Your task to perform on an android device: change notification settings in the gmail app Image 0: 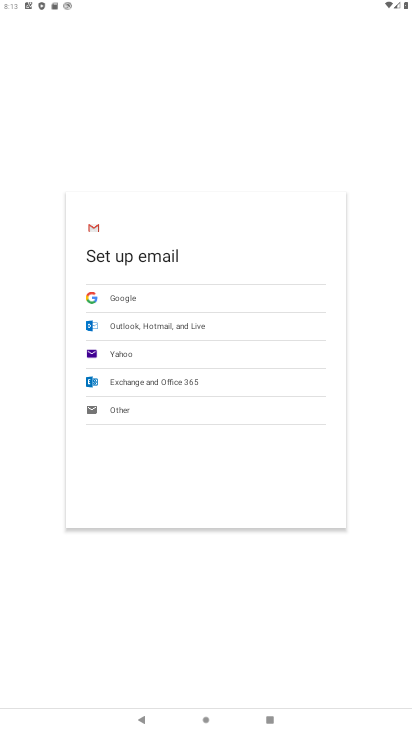
Step 0: press home button
Your task to perform on an android device: change notification settings in the gmail app Image 1: 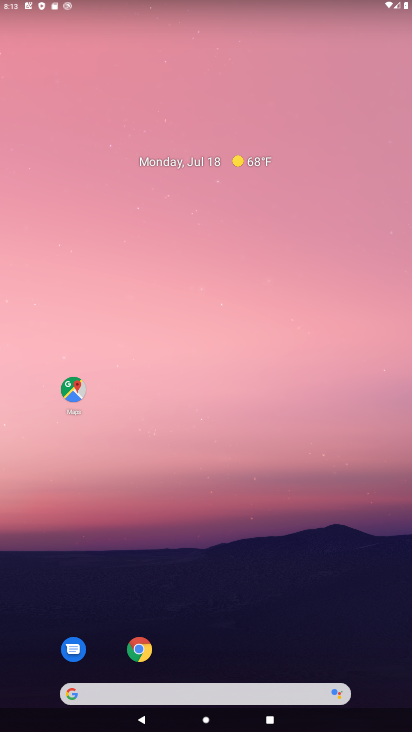
Step 1: drag from (110, 632) to (148, 22)
Your task to perform on an android device: change notification settings in the gmail app Image 2: 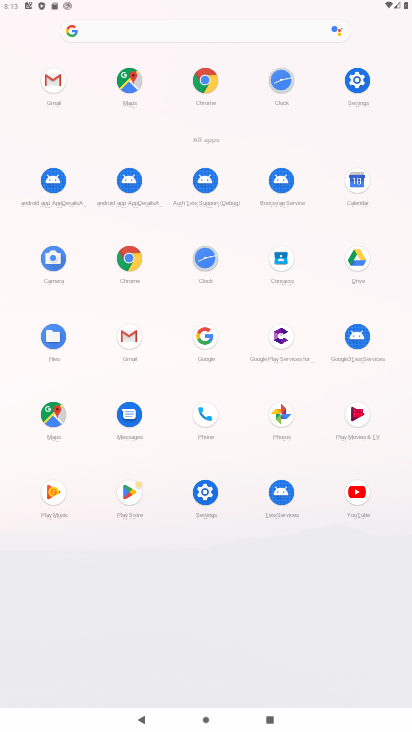
Step 2: click (62, 83)
Your task to perform on an android device: change notification settings in the gmail app Image 3: 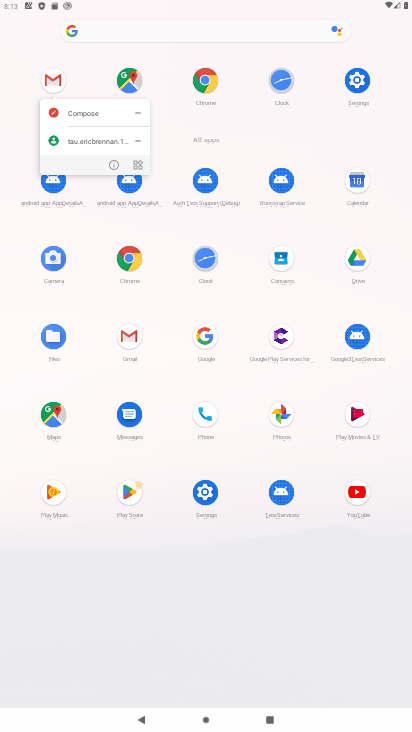
Step 3: click (117, 163)
Your task to perform on an android device: change notification settings in the gmail app Image 4: 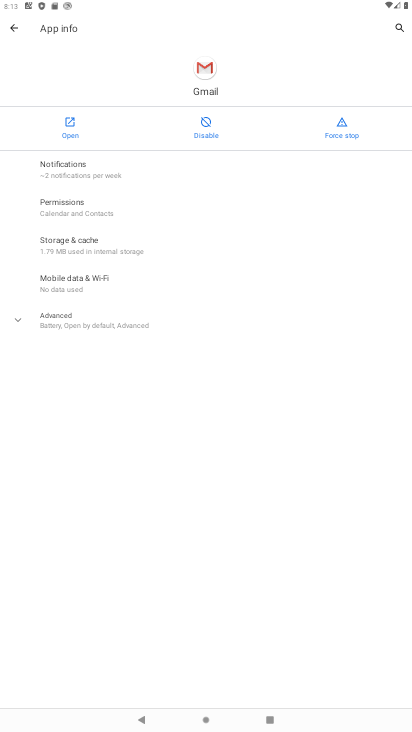
Step 4: click (179, 172)
Your task to perform on an android device: change notification settings in the gmail app Image 5: 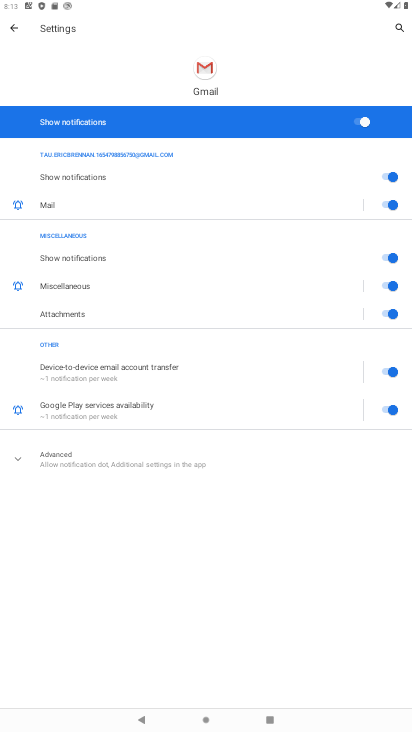
Step 5: click (362, 120)
Your task to perform on an android device: change notification settings in the gmail app Image 6: 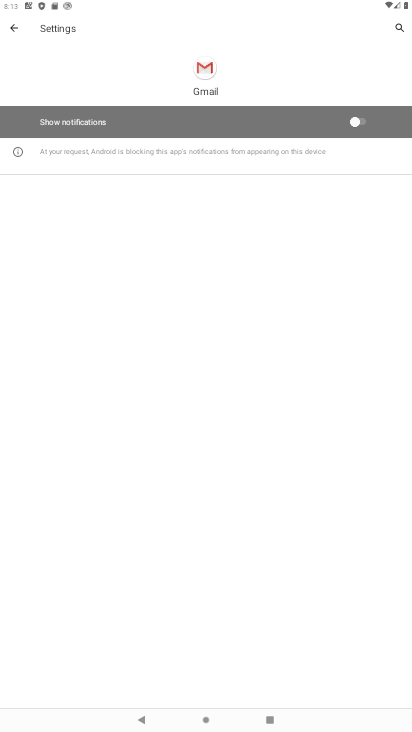
Step 6: task complete